Your task to perform on an android device: add a contact in the contacts app Image 0: 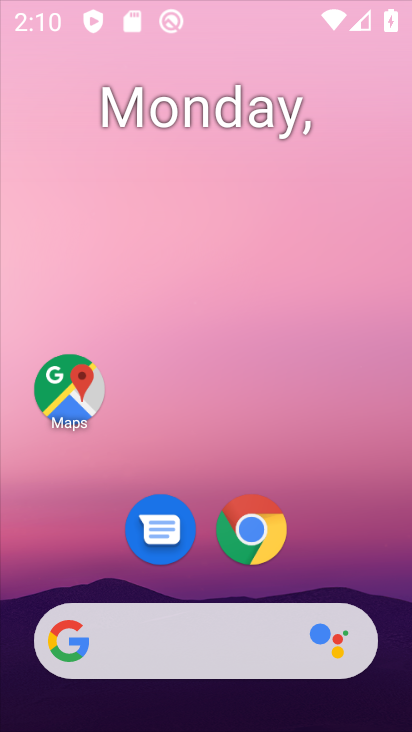
Step 0: press home button
Your task to perform on an android device: add a contact in the contacts app Image 1: 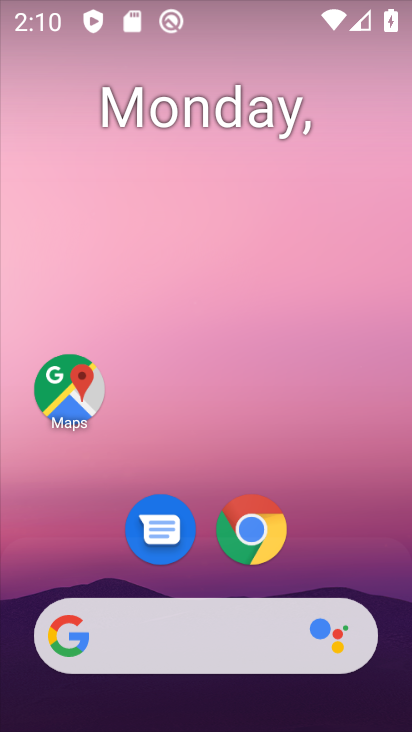
Step 1: drag from (72, 601) to (199, 3)
Your task to perform on an android device: add a contact in the contacts app Image 2: 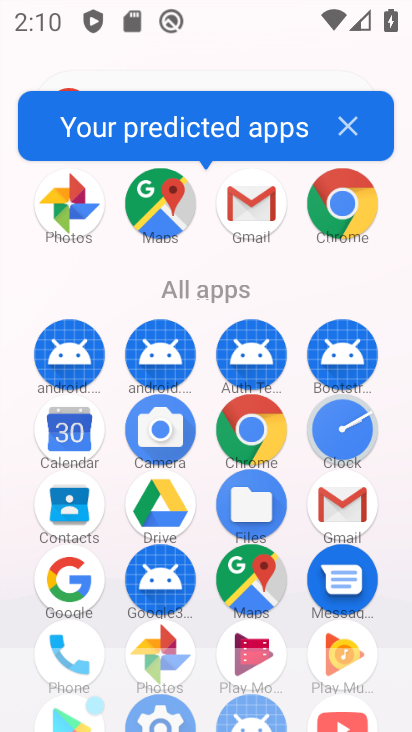
Step 2: click (87, 529)
Your task to perform on an android device: add a contact in the contacts app Image 3: 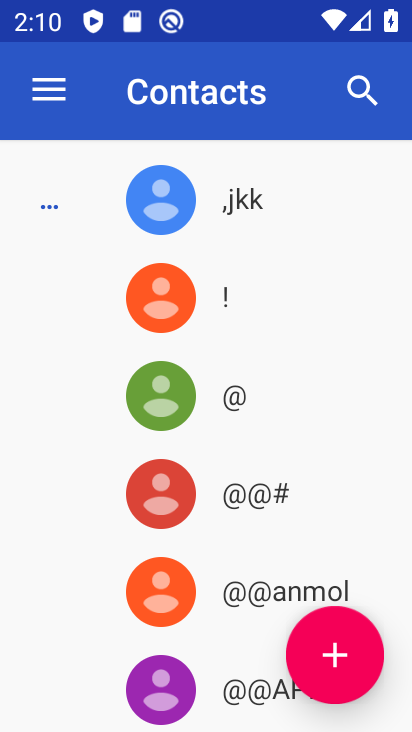
Step 3: click (313, 655)
Your task to perform on an android device: add a contact in the contacts app Image 4: 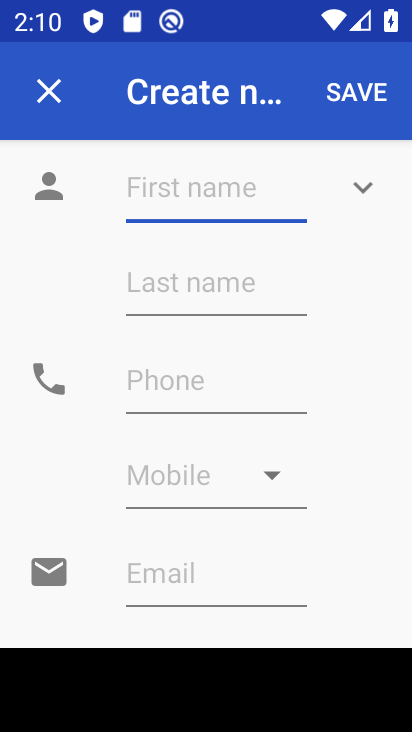
Step 4: type "ppp"
Your task to perform on an android device: add a contact in the contacts app Image 5: 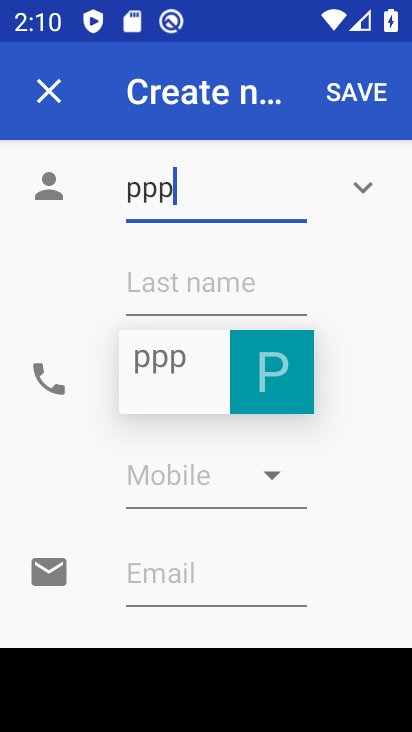
Step 5: click (160, 384)
Your task to perform on an android device: add a contact in the contacts app Image 6: 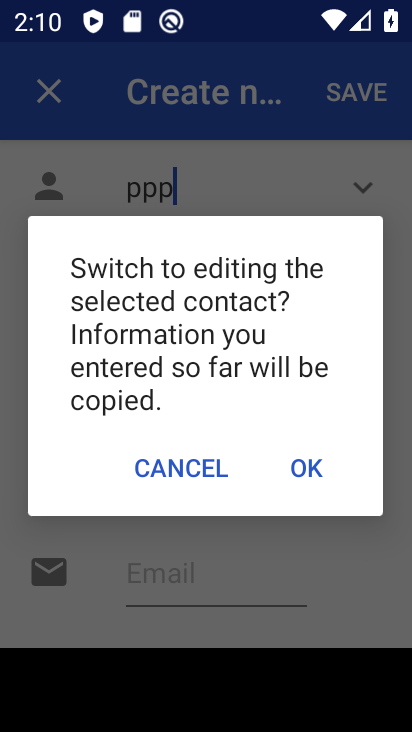
Step 6: click (182, 461)
Your task to perform on an android device: add a contact in the contacts app Image 7: 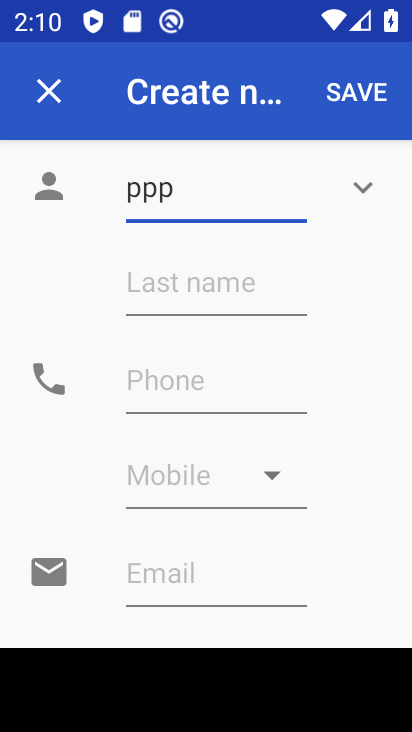
Step 7: type "p"
Your task to perform on an android device: add a contact in the contacts app Image 8: 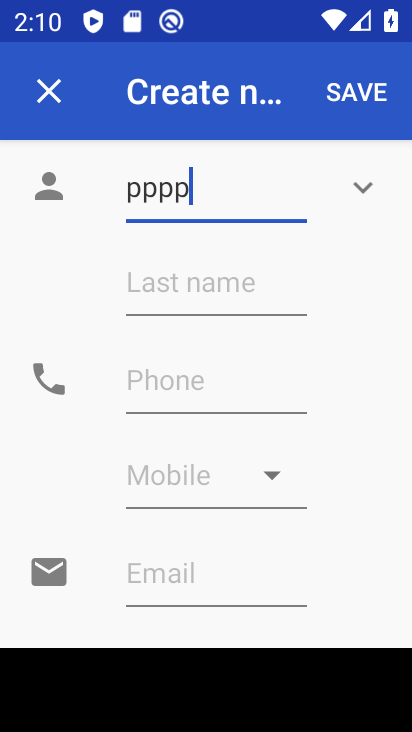
Step 8: click (201, 396)
Your task to perform on an android device: add a contact in the contacts app Image 9: 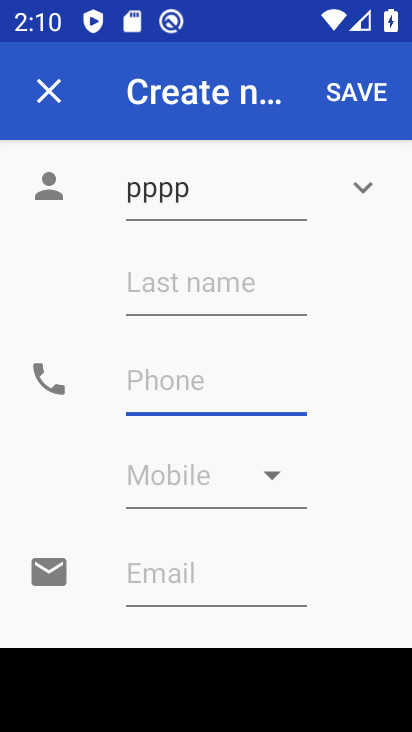
Step 9: type "899899788"
Your task to perform on an android device: add a contact in the contacts app Image 10: 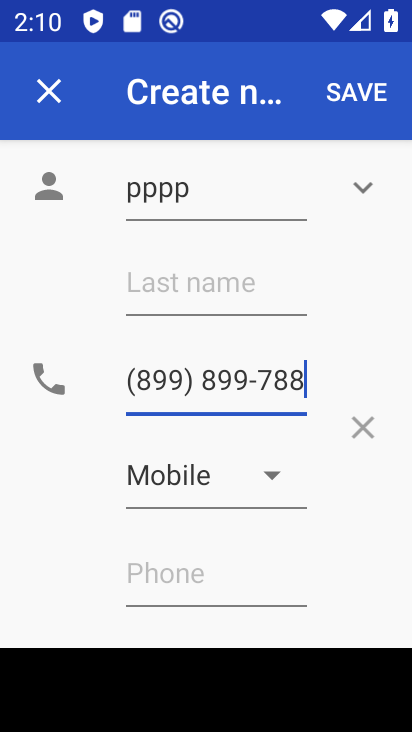
Step 10: click (360, 93)
Your task to perform on an android device: add a contact in the contacts app Image 11: 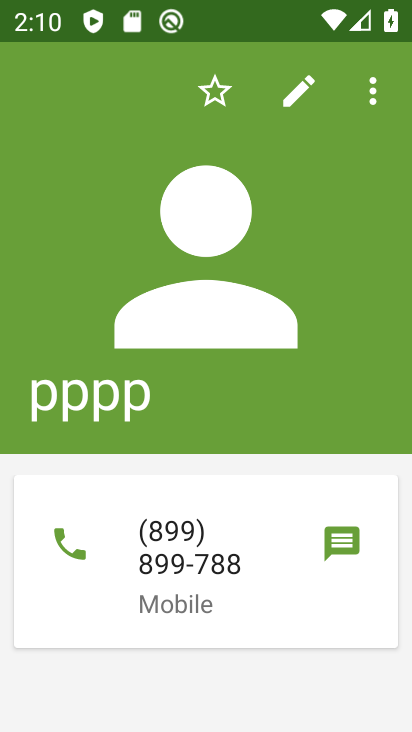
Step 11: task complete